Your task to perform on an android device: What's on my calendar today? Image 0: 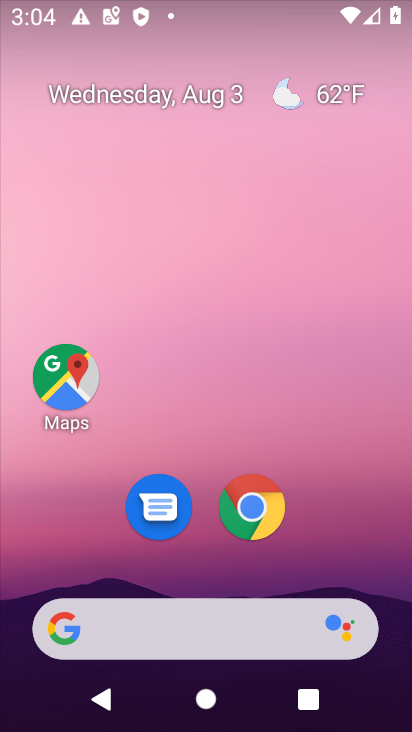
Step 0: drag from (348, 547) to (91, 63)
Your task to perform on an android device: What's on my calendar today? Image 1: 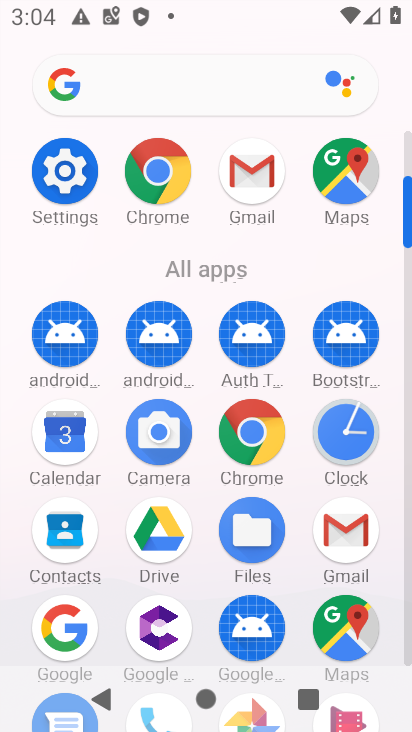
Step 1: click (67, 415)
Your task to perform on an android device: What's on my calendar today? Image 2: 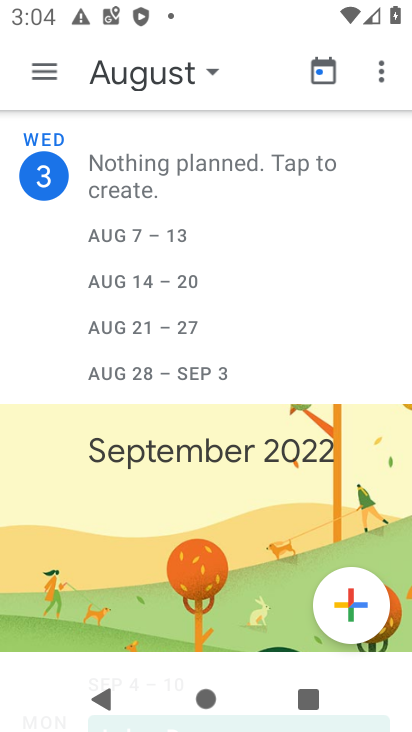
Step 2: task complete